Your task to perform on an android device: turn off data saver in the chrome app Image 0: 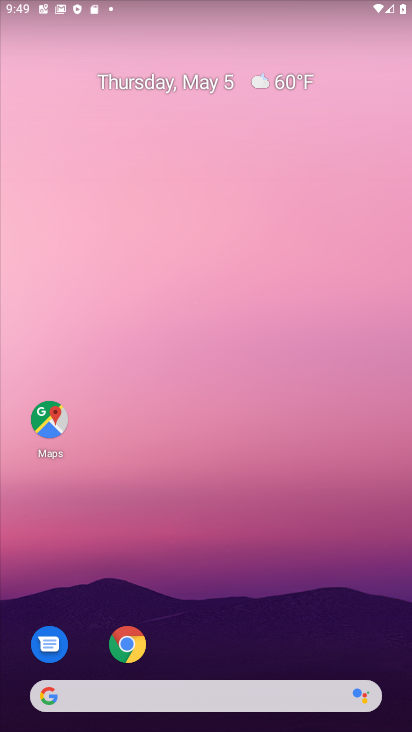
Step 0: click (138, 644)
Your task to perform on an android device: turn off data saver in the chrome app Image 1: 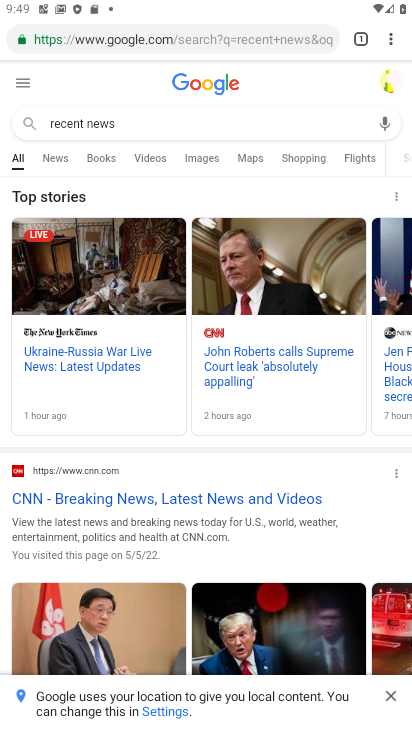
Step 1: drag from (391, 46) to (287, 441)
Your task to perform on an android device: turn off data saver in the chrome app Image 2: 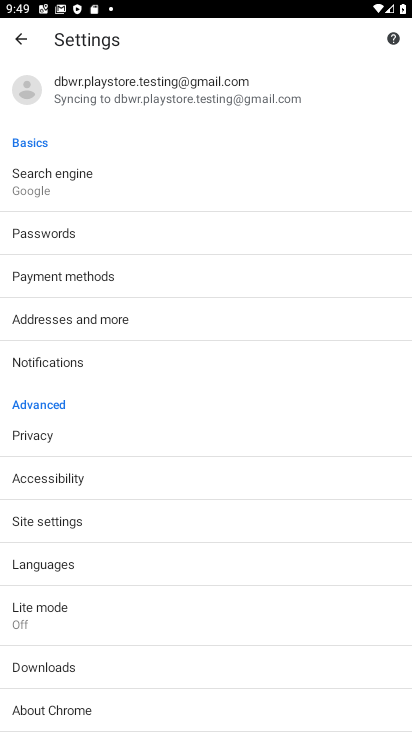
Step 2: click (159, 616)
Your task to perform on an android device: turn off data saver in the chrome app Image 3: 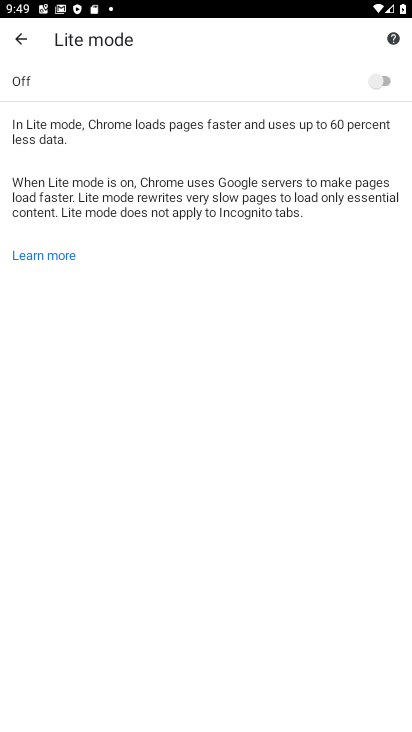
Step 3: task complete